Your task to perform on an android device: read, delete, or share a saved page in the chrome app Image 0: 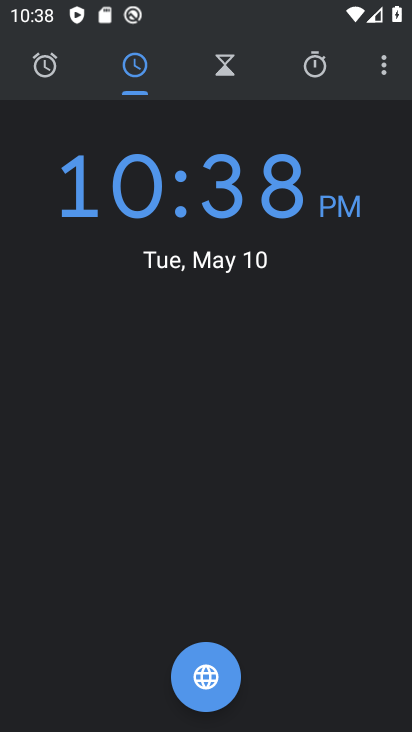
Step 0: press home button
Your task to perform on an android device: read, delete, or share a saved page in the chrome app Image 1: 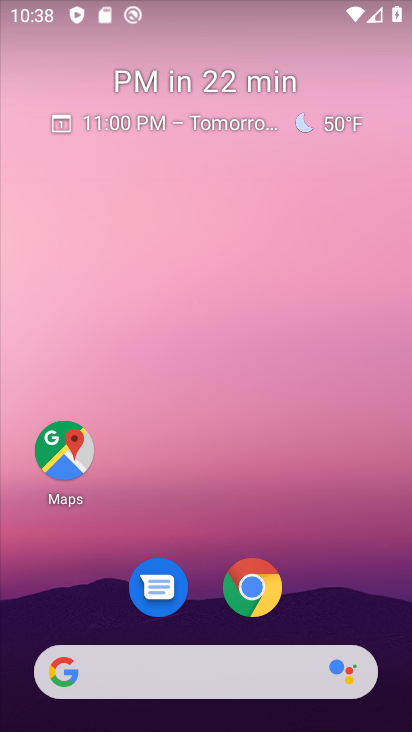
Step 1: click (251, 592)
Your task to perform on an android device: read, delete, or share a saved page in the chrome app Image 2: 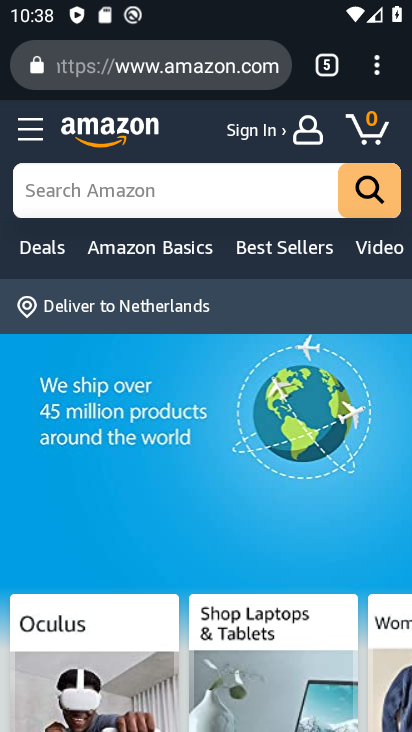
Step 2: click (381, 71)
Your task to perform on an android device: read, delete, or share a saved page in the chrome app Image 3: 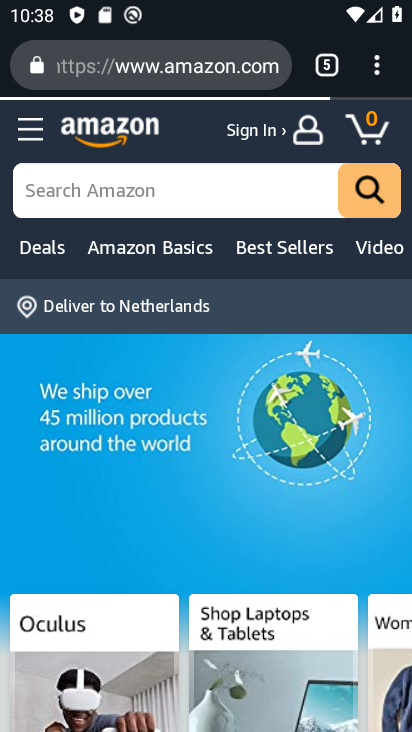
Step 3: task complete